Your task to perform on an android device: turn off notifications settings in the gmail app Image 0: 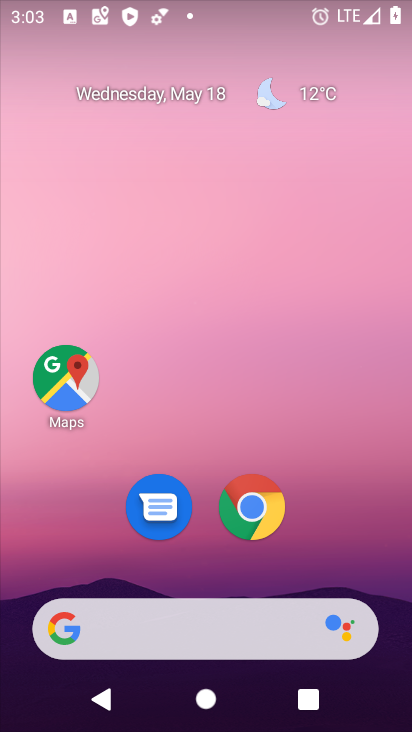
Step 0: drag from (399, 635) to (310, 63)
Your task to perform on an android device: turn off notifications settings in the gmail app Image 1: 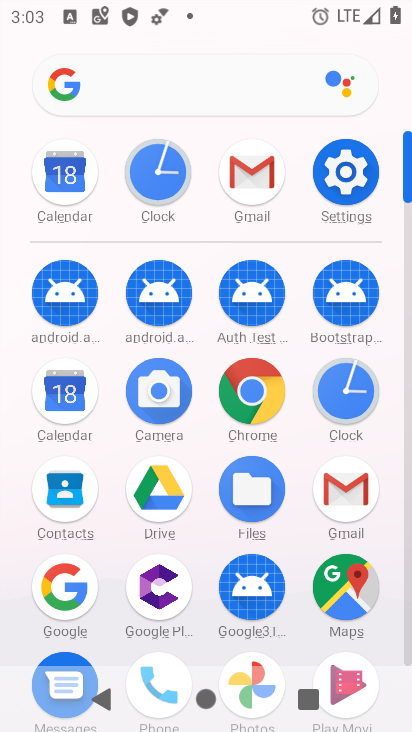
Step 1: click (405, 650)
Your task to perform on an android device: turn off notifications settings in the gmail app Image 2: 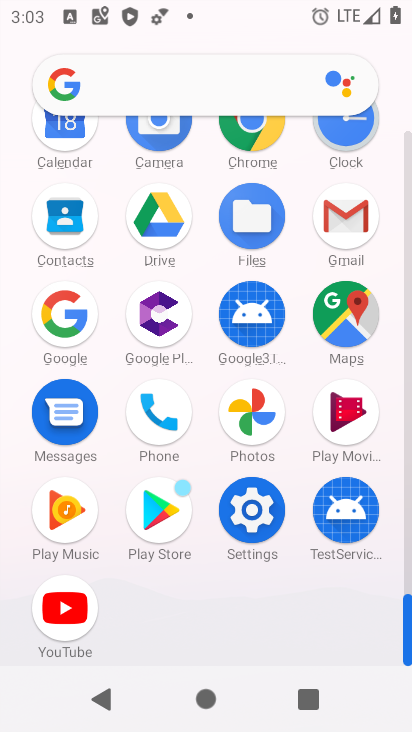
Step 2: click (340, 213)
Your task to perform on an android device: turn off notifications settings in the gmail app Image 3: 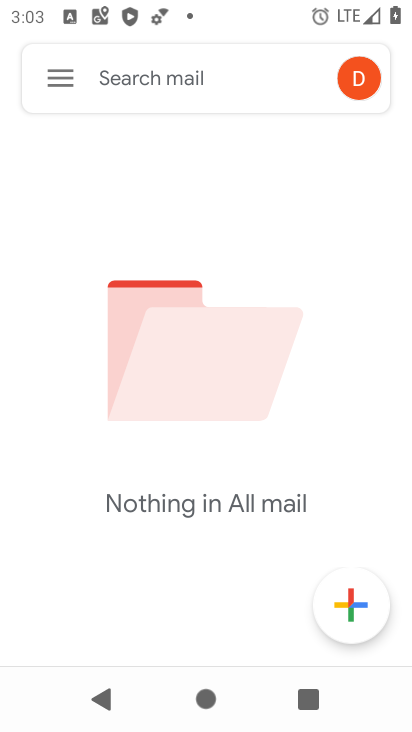
Step 3: click (57, 75)
Your task to perform on an android device: turn off notifications settings in the gmail app Image 4: 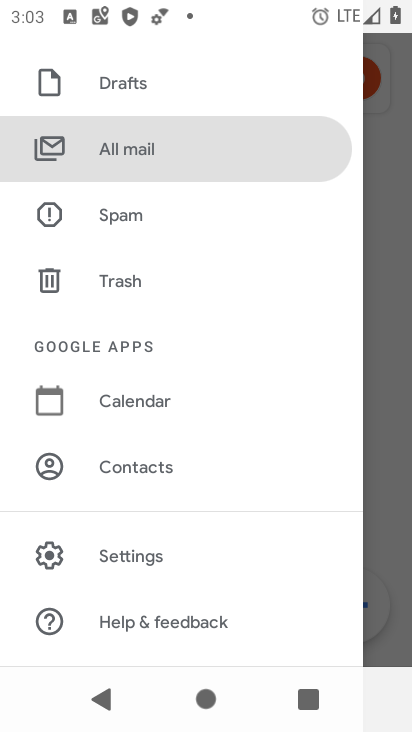
Step 4: click (129, 553)
Your task to perform on an android device: turn off notifications settings in the gmail app Image 5: 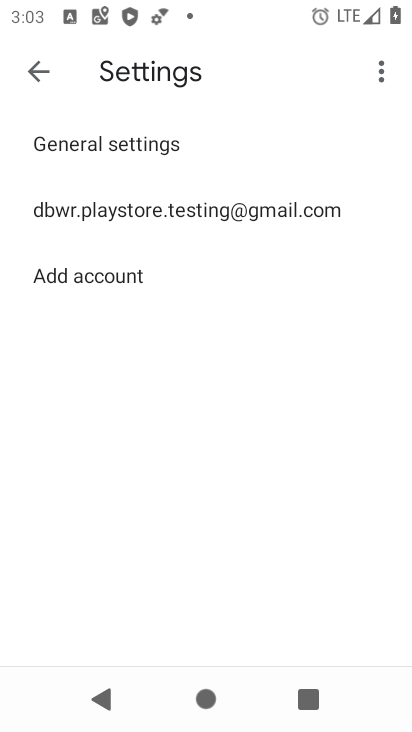
Step 5: click (142, 212)
Your task to perform on an android device: turn off notifications settings in the gmail app Image 6: 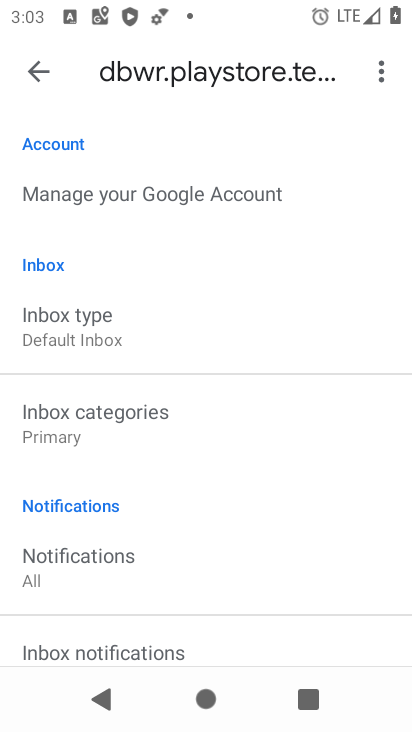
Step 6: drag from (200, 559) to (192, 379)
Your task to perform on an android device: turn off notifications settings in the gmail app Image 7: 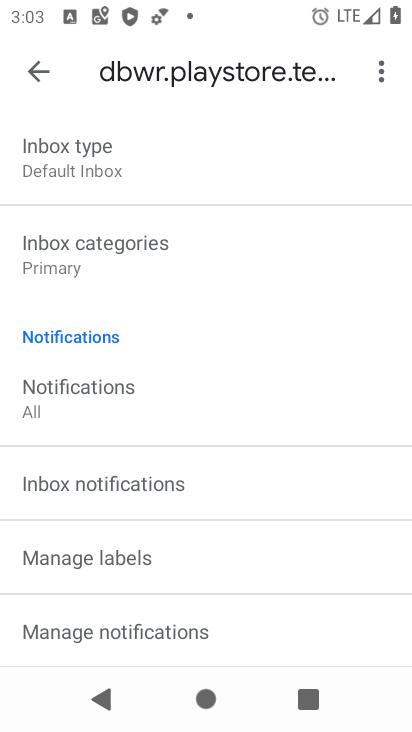
Step 7: drag from (214, 599) to (211, 354)
Your task to perform on an android device: turn off notifications settings in the gmail app Image 8: 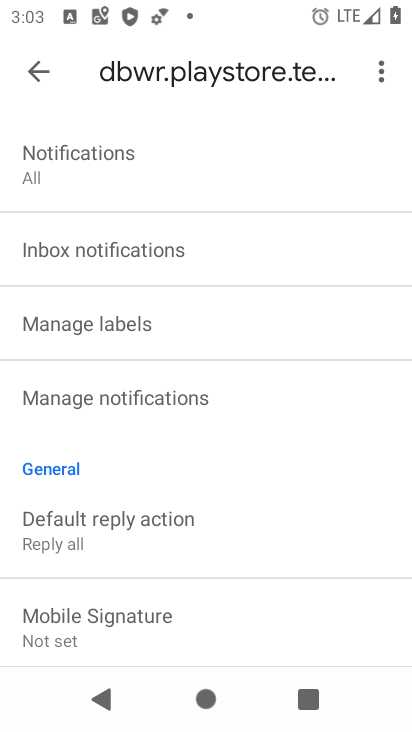
Step 8: click (136, 396)
Your task to perform on an android device: turn off notifications settings in the gmail app Image 9: 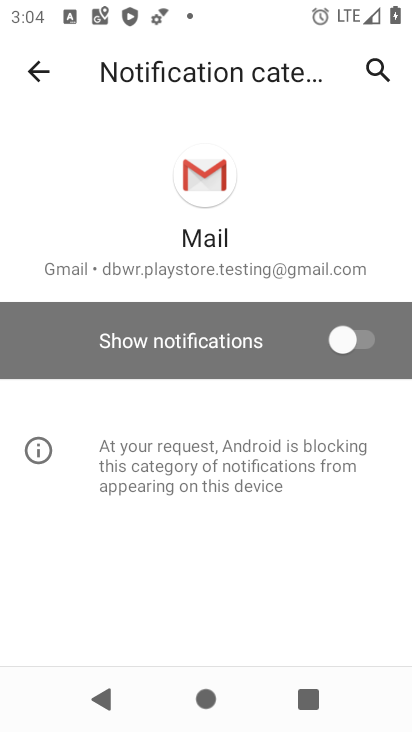
Step 9: task complete